Your task to perform on an android device: Open sound settings Image 0: 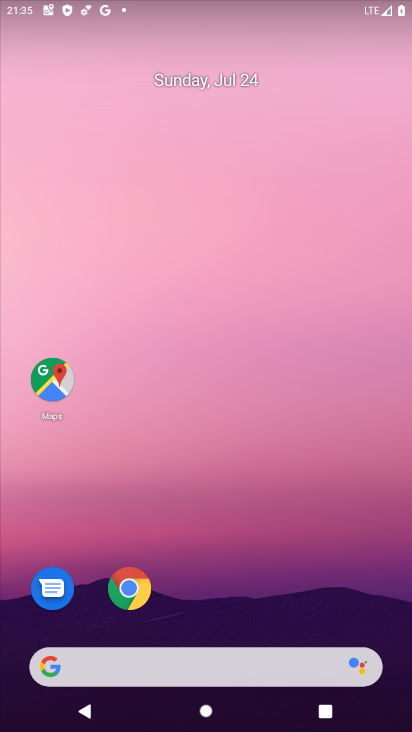
Step 0: drag from (229, 656) to (191, 25)
Your task to perform on an android device: Open sound settings Image 1: 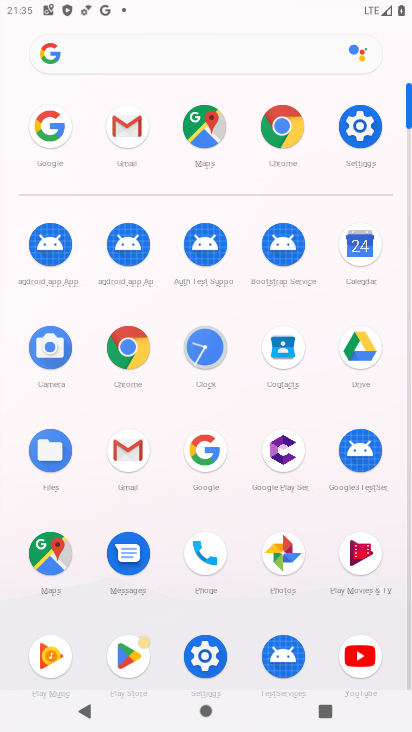
Step 1: click (347, 122)
Your task to perform on an android device: Open sound settings Image 2: 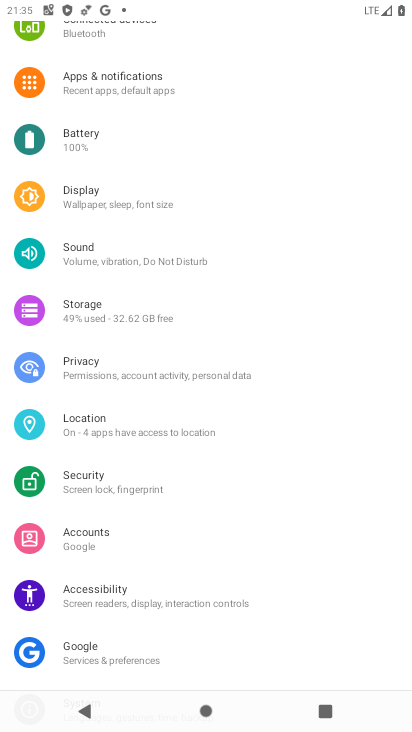
Step 2: click (94, 268)
Your task to perform on an android device: Open sound settings Image 3: 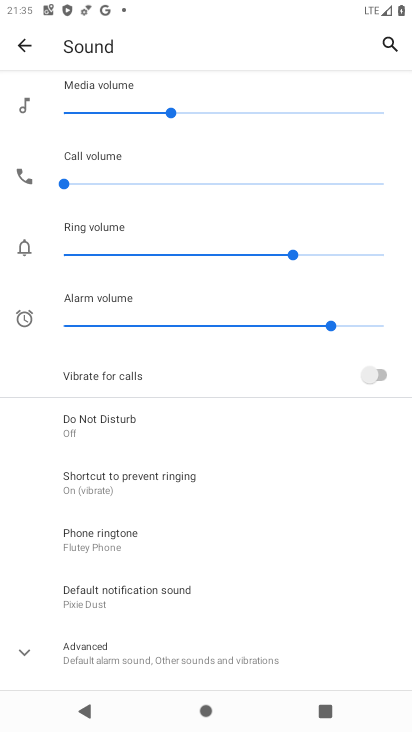
Step 3: task complete